Your task to perform on an android device: Open wifi settings Image 0: 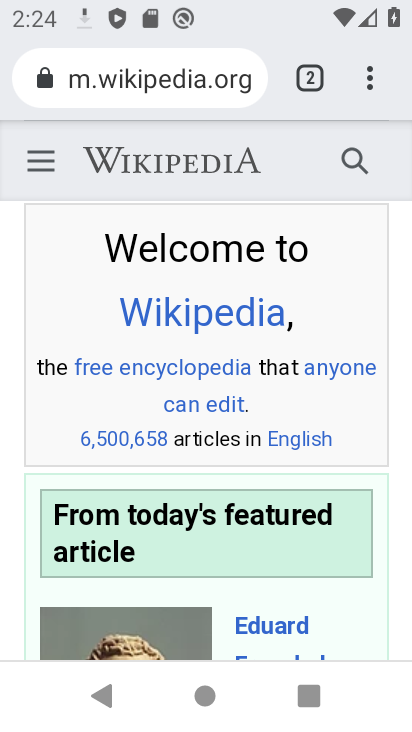
Step 0: press home button
Your task to perform on an android device: Open wifi settings Image 1: 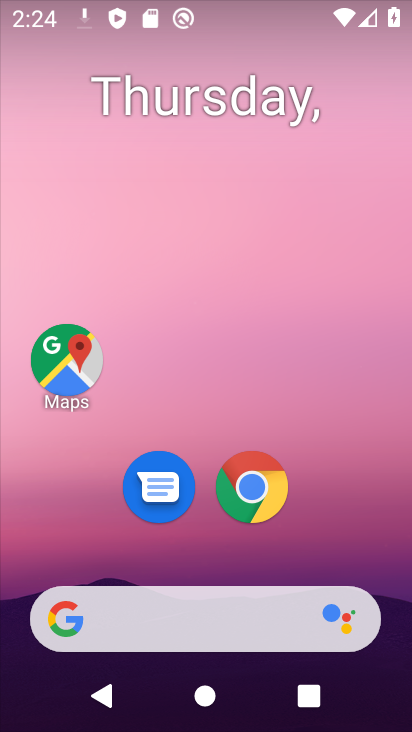
Step 1: drag from (352, 516) to (354, 153)
Your task to perform on an android device: Open wifi settings Image 2: 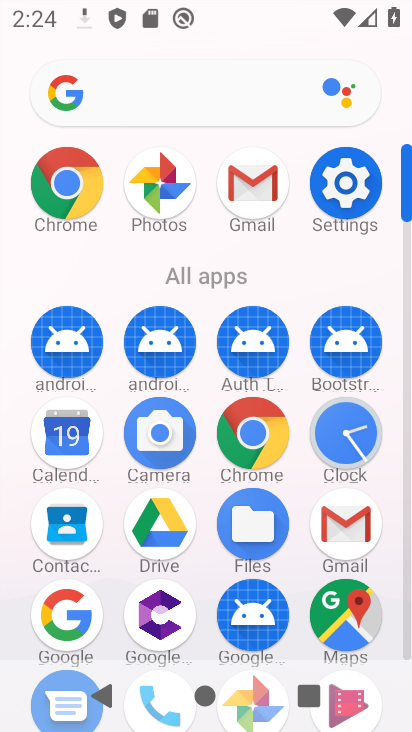
Step 2: click (330, 207)
Your task to perform on an android device: Open wifi settings Image 3: 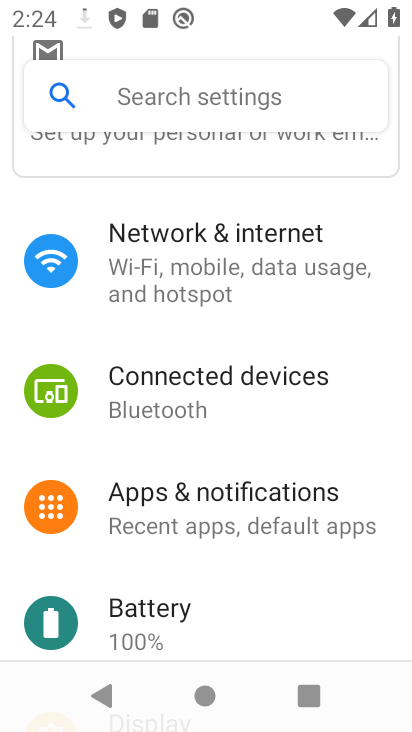
Step 3: click (135, 219)
Your task to perform on an android device: Open wifi settings Image 4: 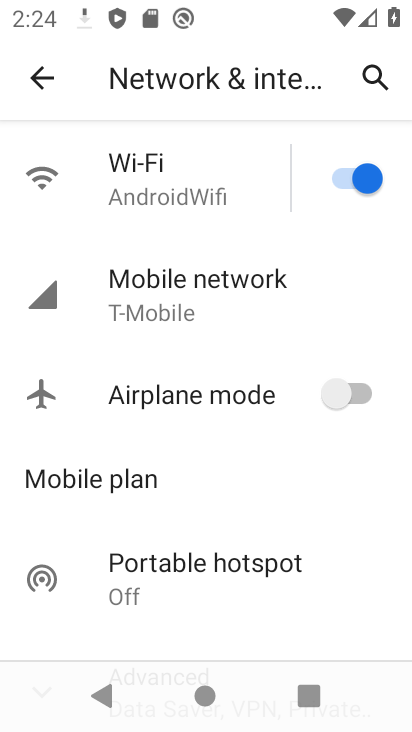
Step 4: click (60, 202)
Your task to perform on an android device: Open wifi settings Image 5: 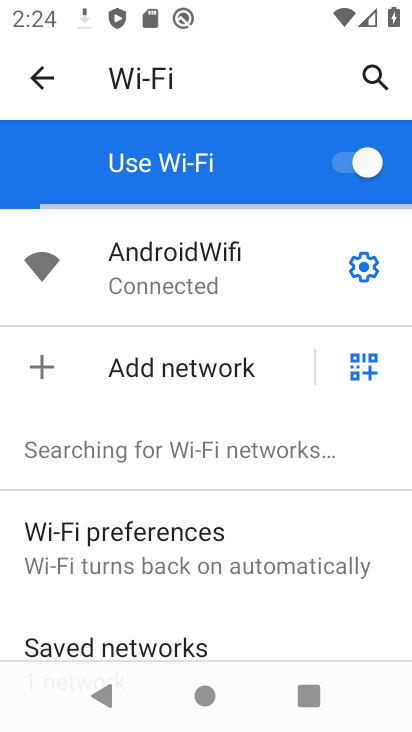
Step 5: task complete